Your task to perform on an android device: turn on bluetooth scan Image 0: 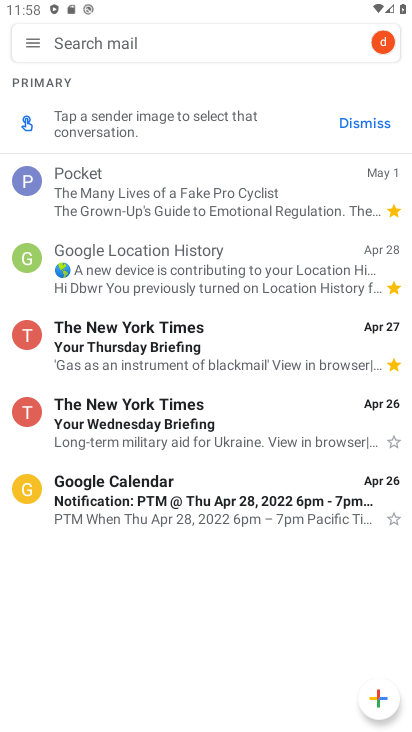
Step 0: press home button
Your task to perform on an android device: turn on bluetooth scan Image 1: 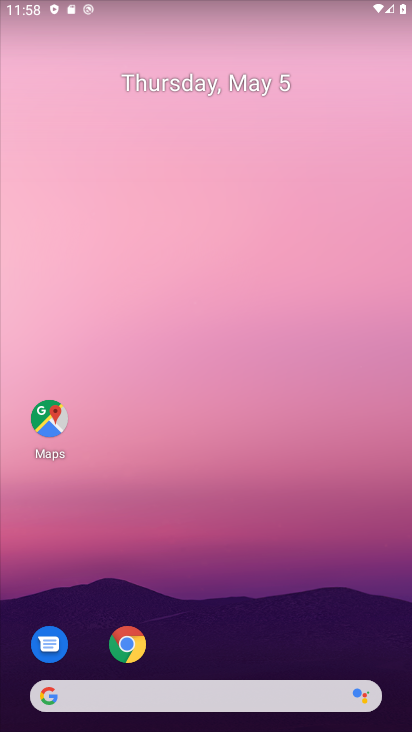
Step 1: drag from (25, 580) to (172, 204)
Your task to perform on an android device: turn on bluetooth scan Image 2: 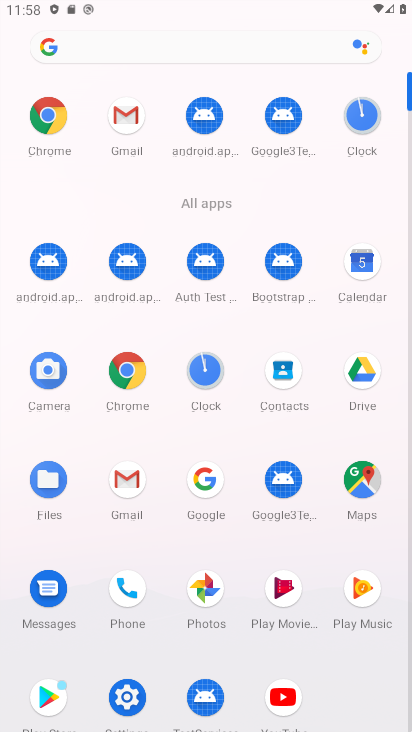
Step 2: click (113, 683)
Your task to perform on an android device: turn on bluetooth scan Image 3: 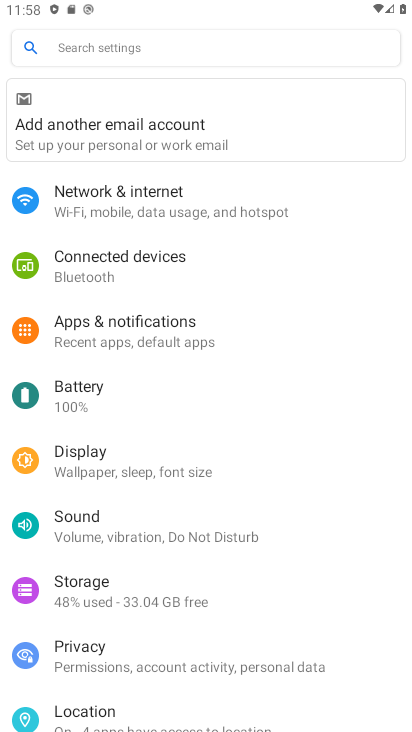
Step 3: click (64, 704)
Your task to perform on an android device: turn on bluetooth scan Image 4: 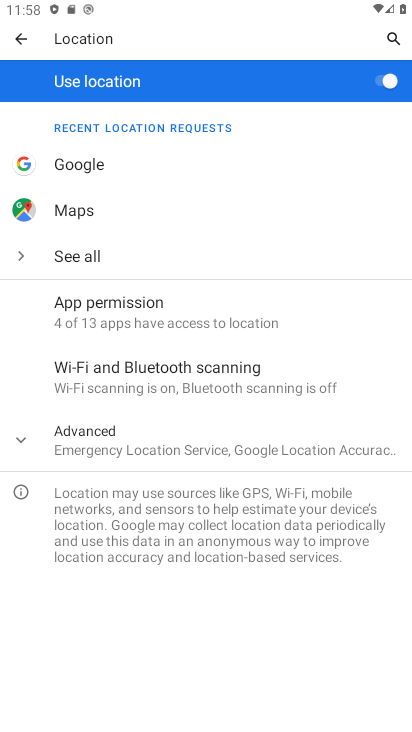
Step 4: click (241, 379)
Your task to perform on an android device: turn on bluetooth scan Image 5: 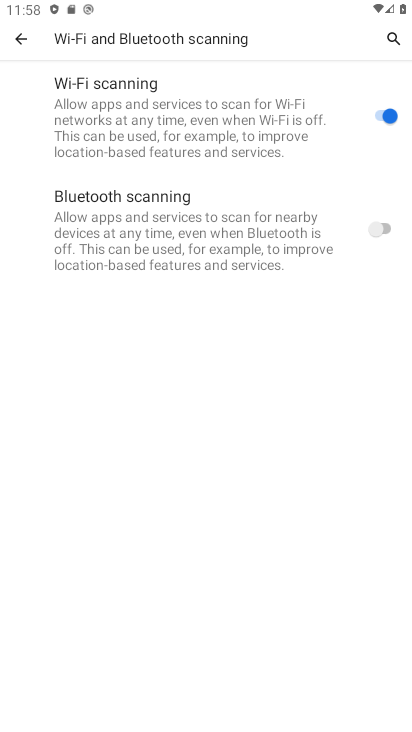
Step 5: click (383, 231)
Your task to perform on an android device: turn on bluetooth scan Image 6: 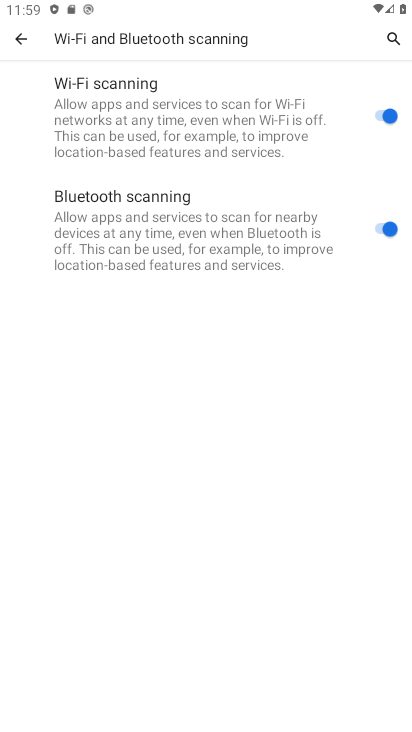
Step 6: task complete